Your task to perform on an android device: Go to Google maps Image 0: 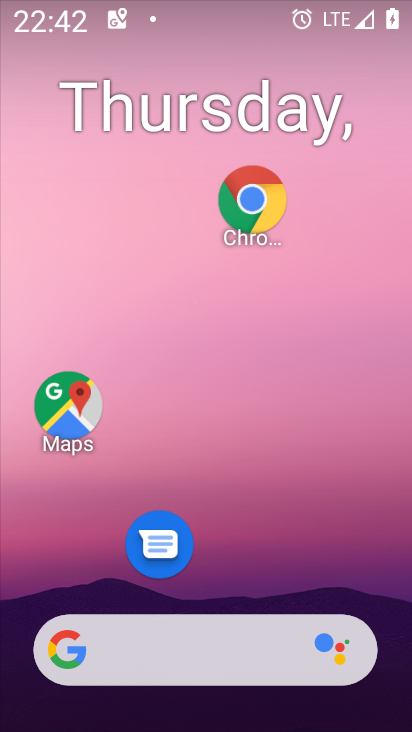
Step 0: click (68, 416)
Your task to perform on an android device: Go to Google maps Image 1: 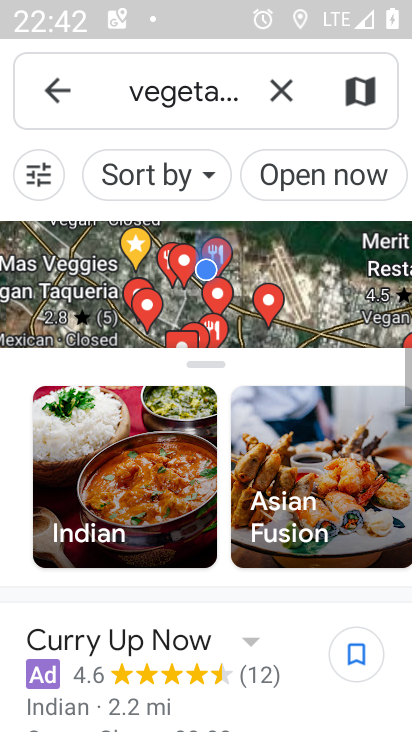
Step 1: task complete